Your task to perform on an android device: turn on javascript in the chrome app Image 0: 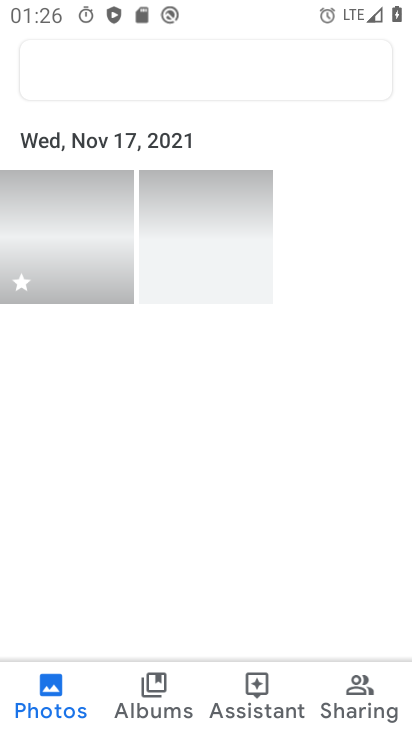
Step 0: click (365, 592)
Your task to perform on an android device: turn on javascript in the chrome app Image 1: 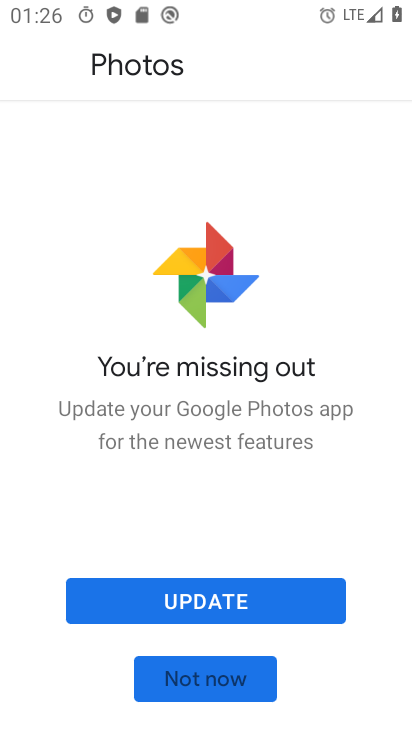
Step 1: press home button
Your task to perform on an android device: turn on javascript in the chrome app Image 2: 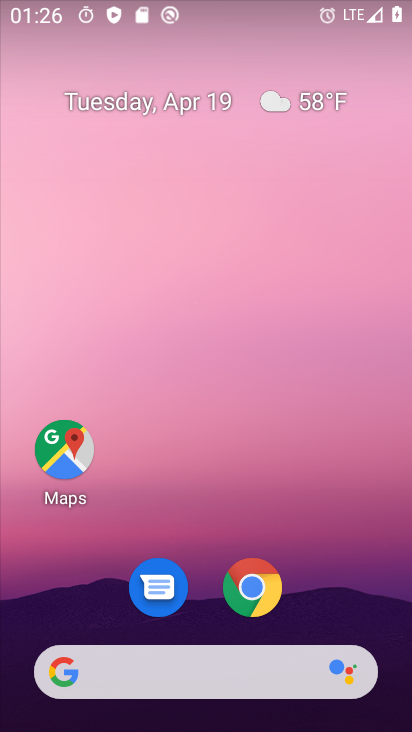
Step 2: click (255, 592)
Your task to perform on an android device: turn on javascript in the chrome app Image 3: 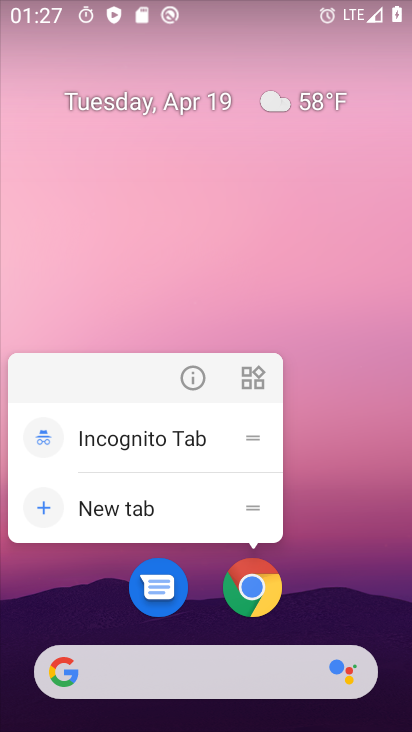
Step 3: click (257, 599)
Your task to perform on an android device: turn on javascript in the chrome app Image 4: 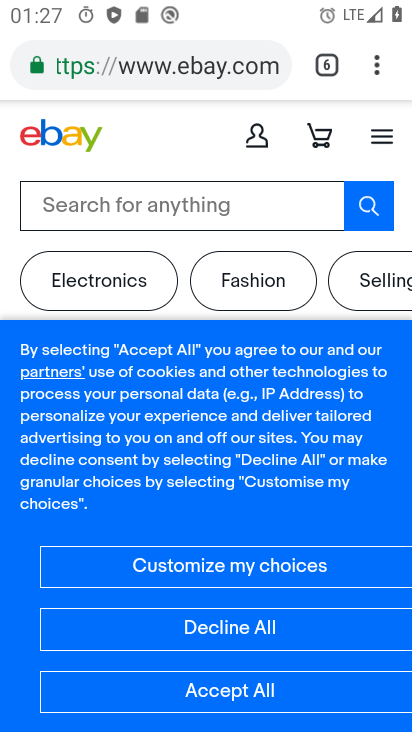
Step 4: click (378, 73)
Your task to perform on an android device: turn on javascript in the chrome app Image 5: 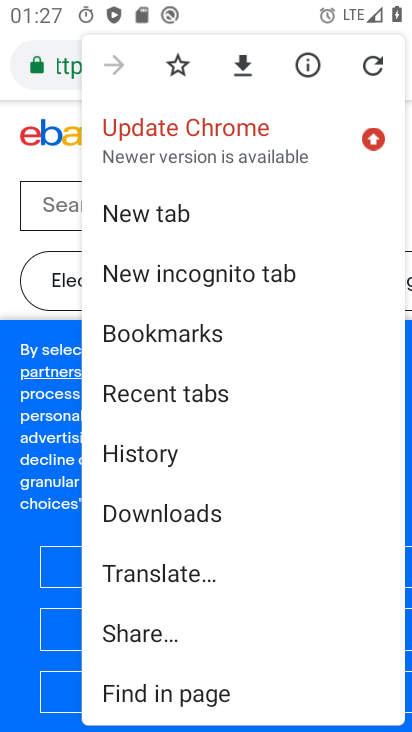
Step 5: drag from (225, 574) to (199, 228)
Your task to perform on an android device: turn on javascript in the chrome app Image 6: 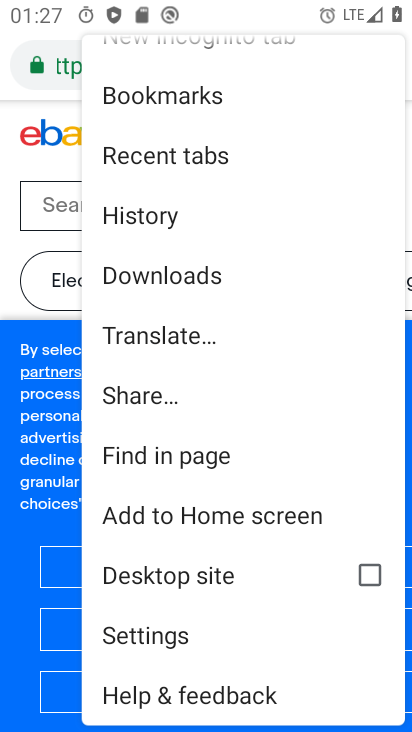
Step 6: click (150, 627)
Your task to perform on an android device: turn on javascript in the chrome app Image 7: 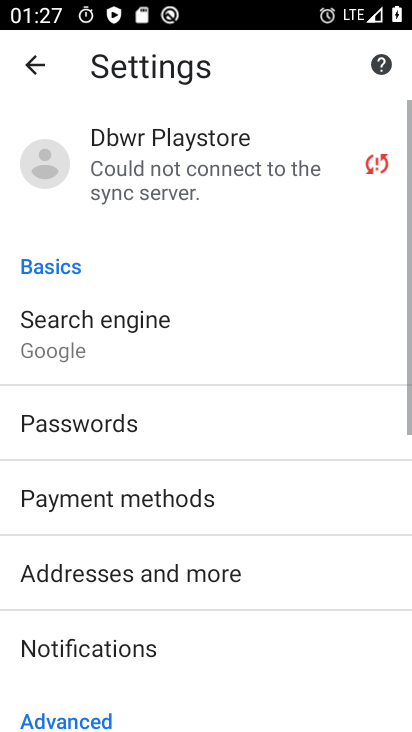
Step 7: drag from (289, 667) to (286, 376)
Your task to perform on an android device: turn on javascript in the chrome app Image 8: 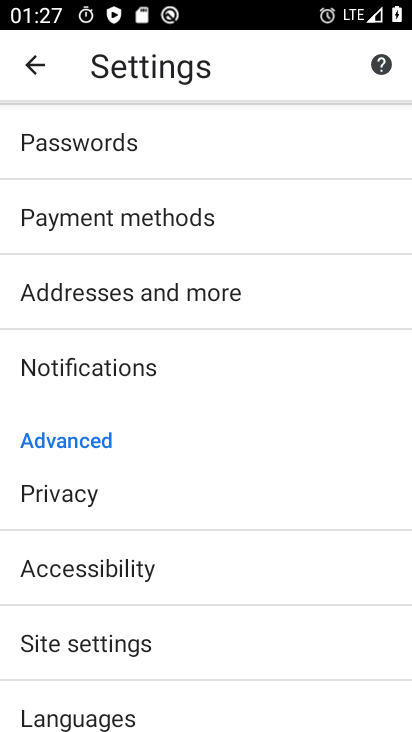
Step 8: drag from (297, 605) to (301, 334)
Your task to perform on an android device: turn on javascript in the chrome app Image 9: 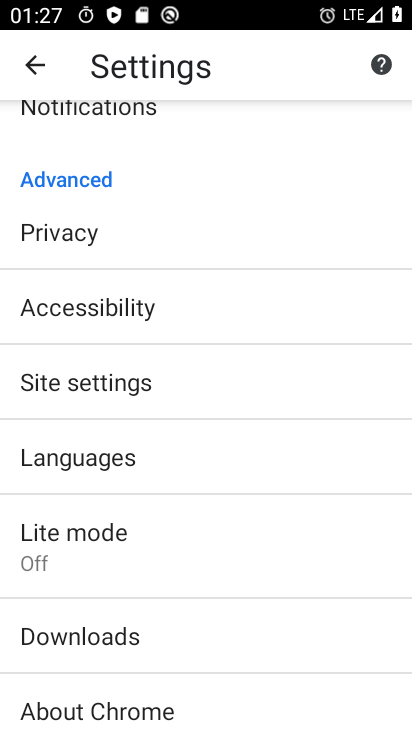
Step 9: click (160, 379)
Your task to perform on an android device: turn on javascript in the chrome app Image 10: 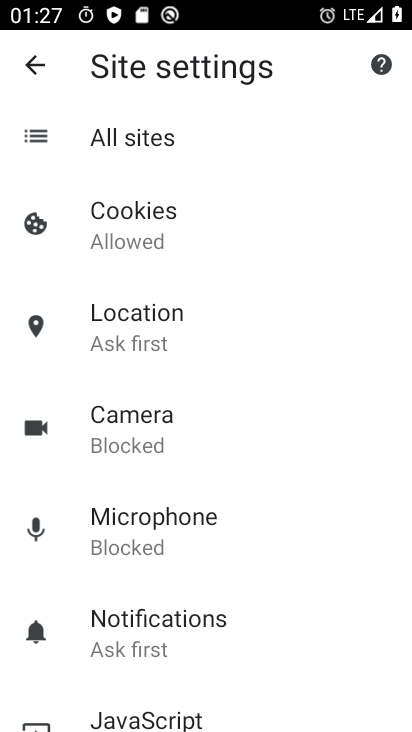
Step 10: drag from (239, 567) to (224, 328)
Your task to perform on an android device: turn on javascript in the chrome app Image 11: 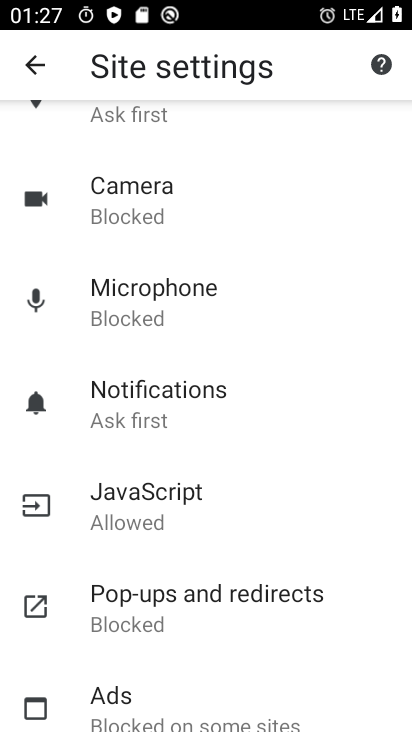
Step 11: click (171, 503)
Your task to perform on an android device: turn on javascript in the chrome app Image 12: 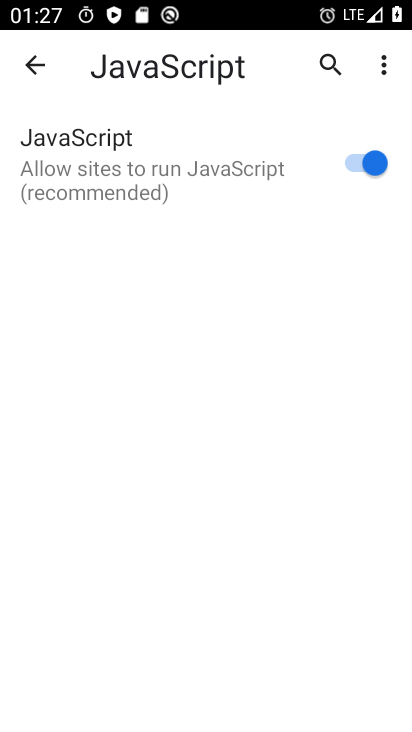
Step 12: task complete